Your task to perform on an android device: Open Wikipedia Image 0: 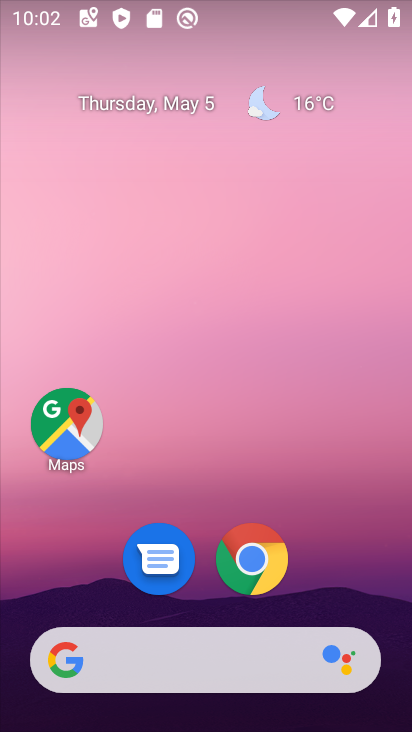
Step 0: click (271, 563)
Your task to perform on an android device: Open Wikipedia Image 1: 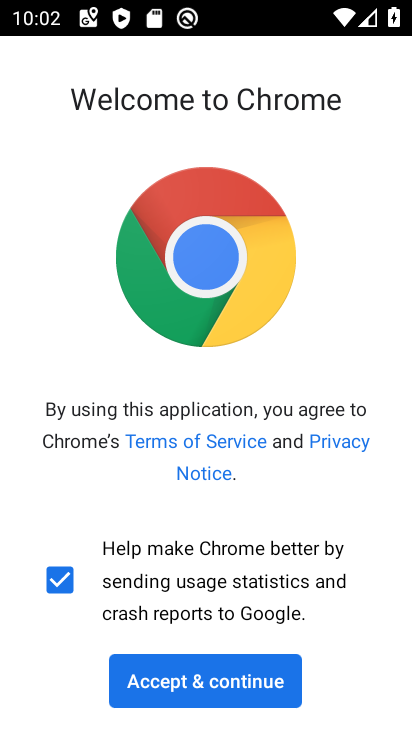
Step 1: click (228, 698)
Your task to perform on an android device: Open Wikipedia Image 2: 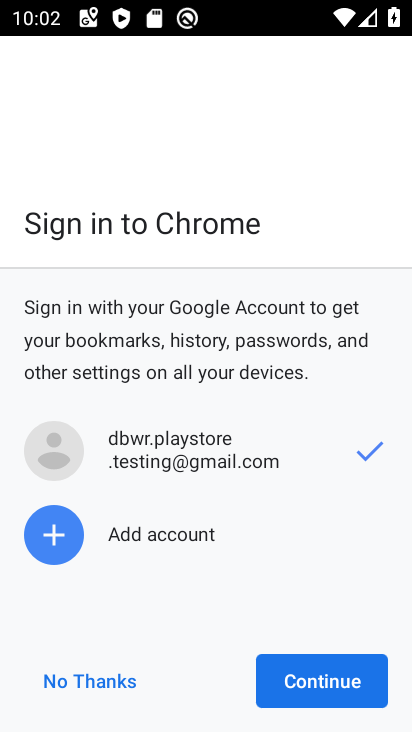
Step 2: click (285, 686)
Your task to perform on an android device: Open Wikipedia Image 3: 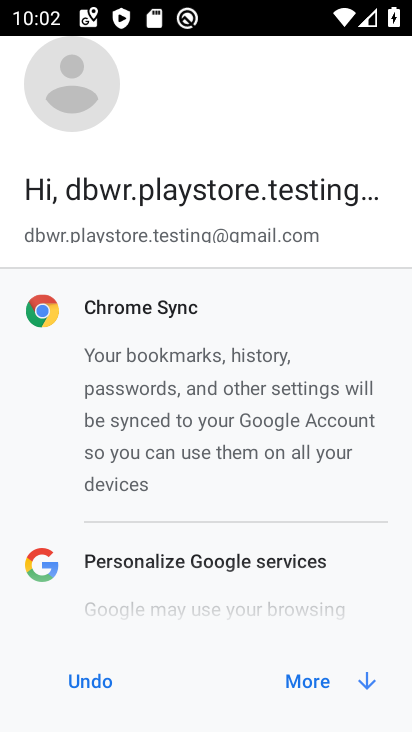
Step 3: click (294, 680)
Your task to perform on an android device: Open Wikipedia Image 4: 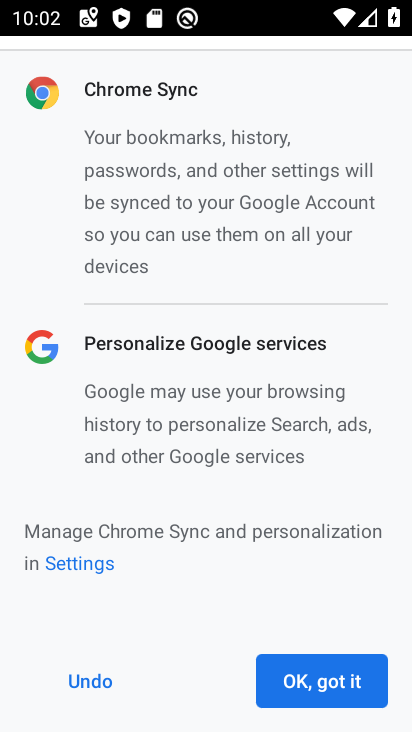
Step 4: click (295, 680)
Your task to perform on an android device: Open Wikipedia Image 5: 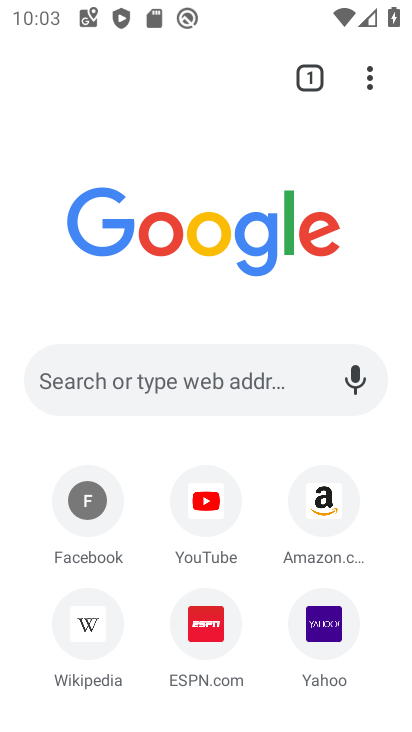
Step 5: click (98, 617)
Your task to perform on an android device: Open Wikipedia Image 6: 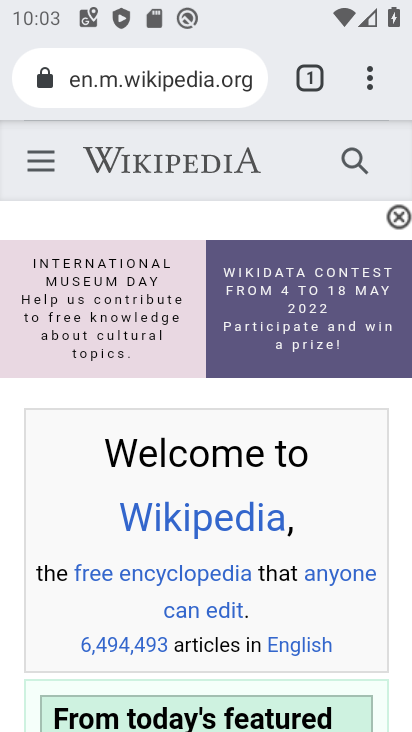
Step 6: task complete